Your task to perform on an android device: delete location history Image 0: 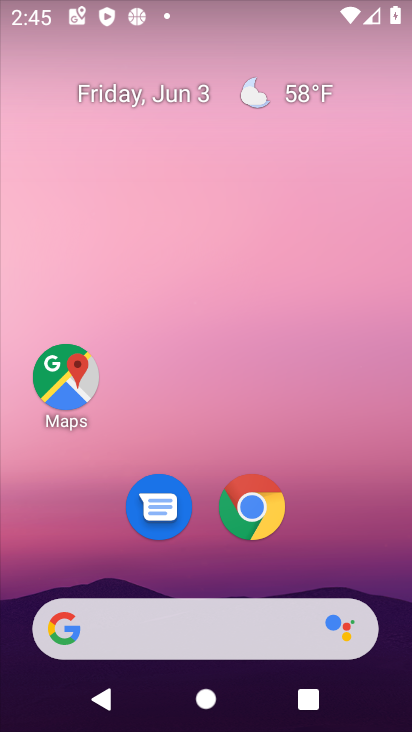
Step 0: click (68, 378)
Your task to perform on an android device: delete location history Image 1: 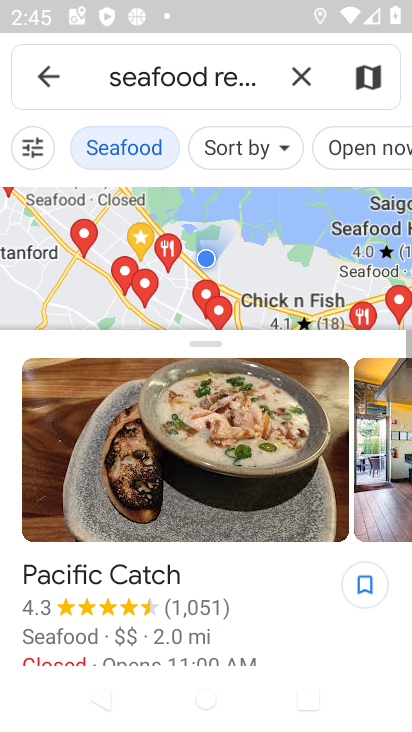
Step 1: click (297, 83)
Your task to perform on an android device: delete location history Image 2: 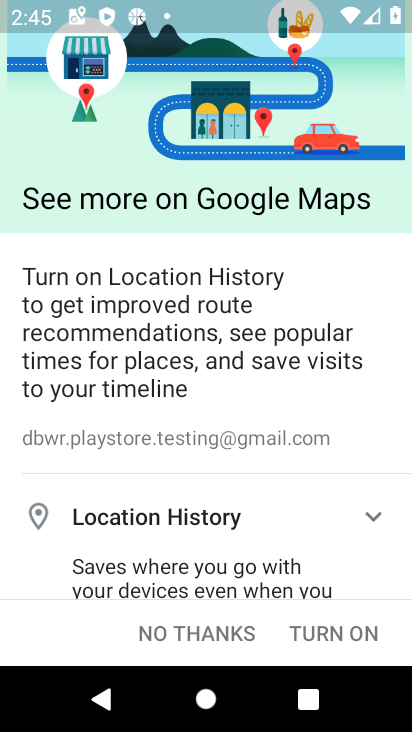
Step 2: click (201, 635)
Your task to perform on an android device: delete location history Image 3: 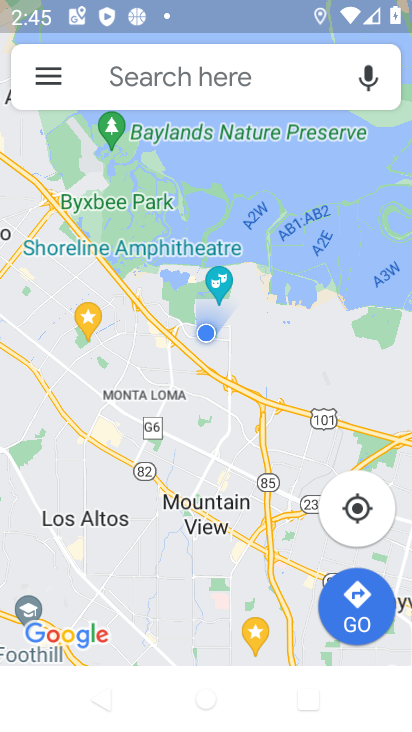
Step 3: click (49, 78)
Your task to perform on an android device: delete location history Image 4: 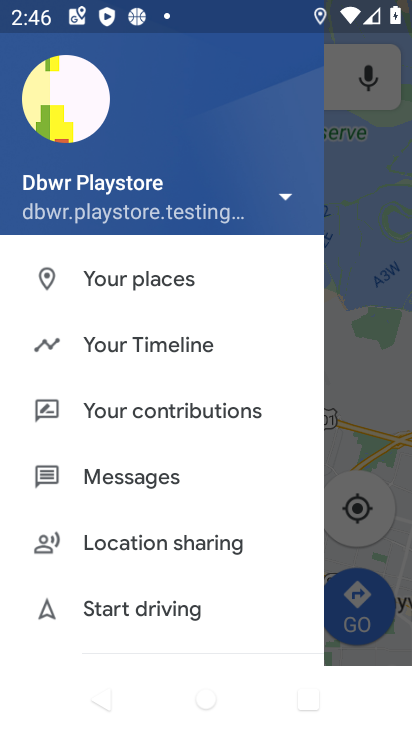
Step 4: drag from (125, 576) to (153, 482)
Your task to perform on an android device: delete location history Image 5: 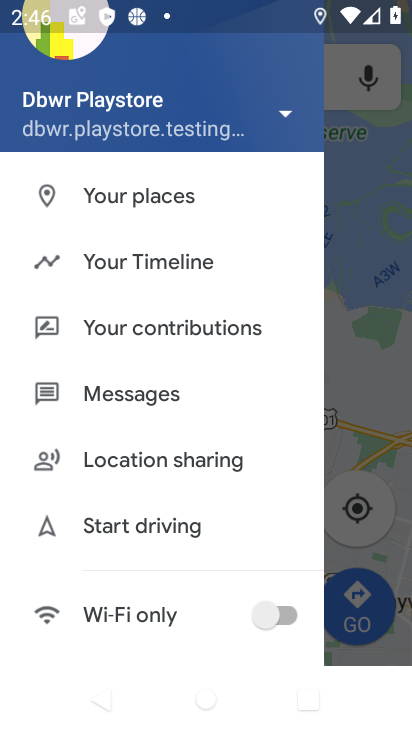
Step 5: drag from (154, 537) to (216, 461)
Your task to perform on an android device: delete location history Image 6: 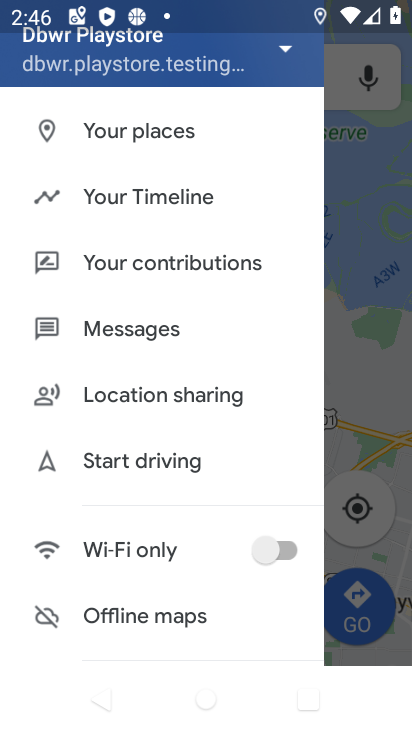
Step 6: drag from (148, 491) to (187, 425)
Your task to perform on an android device: delete location history Image 7: 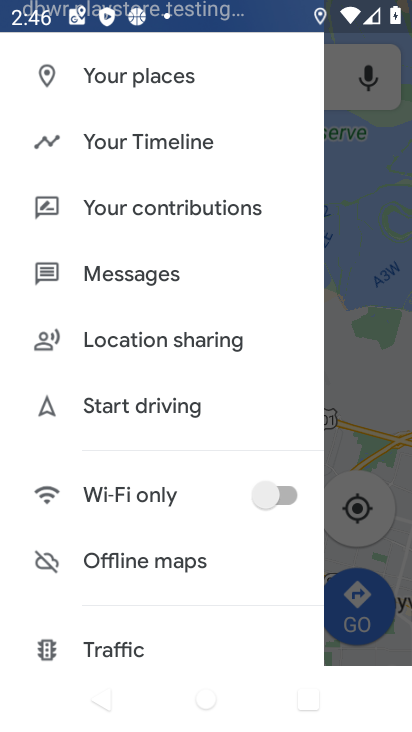
Step 7: drag from (130, 528) to (194, 411)
Your task to perform on an android device: delete location history Image 8: 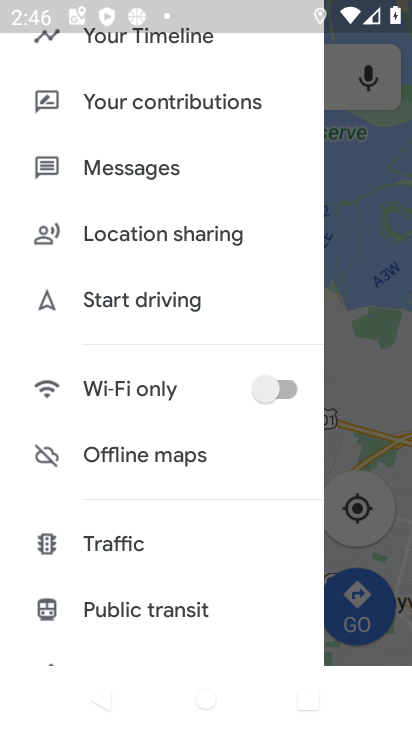
Step 8: drag from (116, 514) to (203, 406)
Your task to perform on an android device: delete location history Image 9: 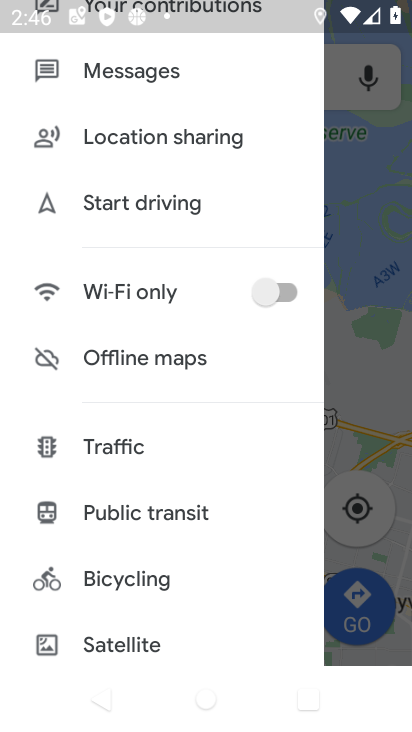
Step 9: drag from (121, 536) to (194, 436)
Your task to perform on an android device: delete location history Image 10: 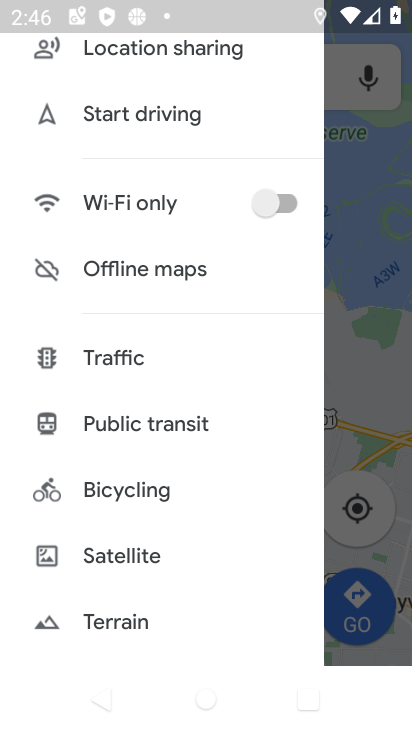
Step 10: drag from (115, 524) to (178, 422)
Your task to perform on an android device: delete location history Image 11: 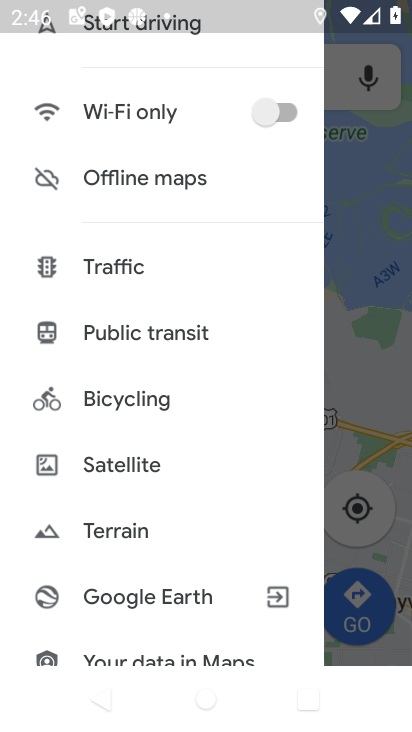
Step 11: drag from (110, 502) to (192, 384)
Your task to perform on an android device: delete location history Image 12: 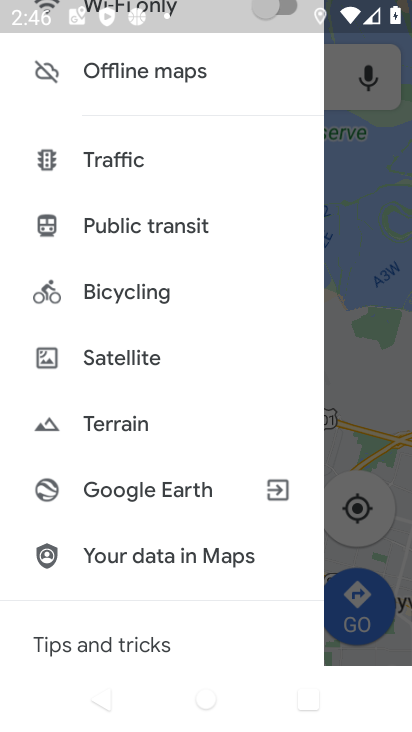
Step 12: drag from (114, 461) to (154, 363)
Your task to perform on an android device: delete location history Image 13: 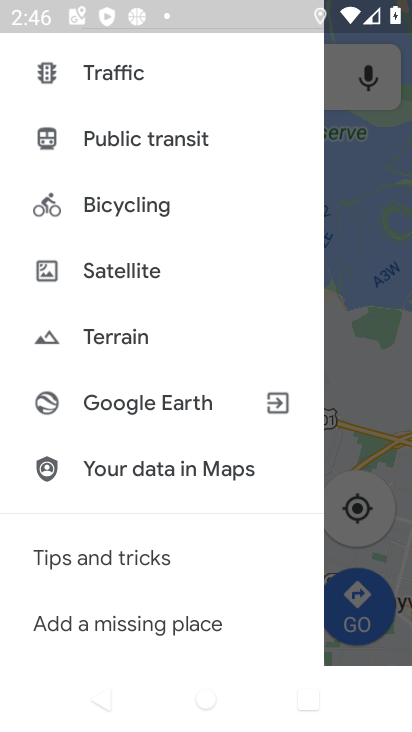
Step 13: drag from (114, 490) to (148, 385)
Your task to perform on an android device: delete location history Image 14: 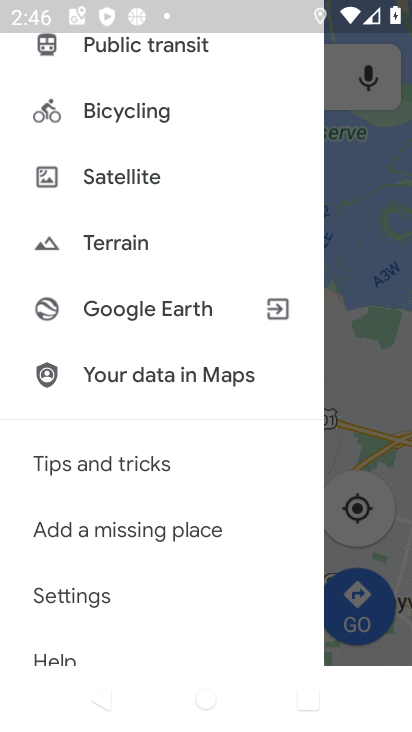
Step 14: click (103, 591)
Your task to perform on an android device: delete location history Image 15: 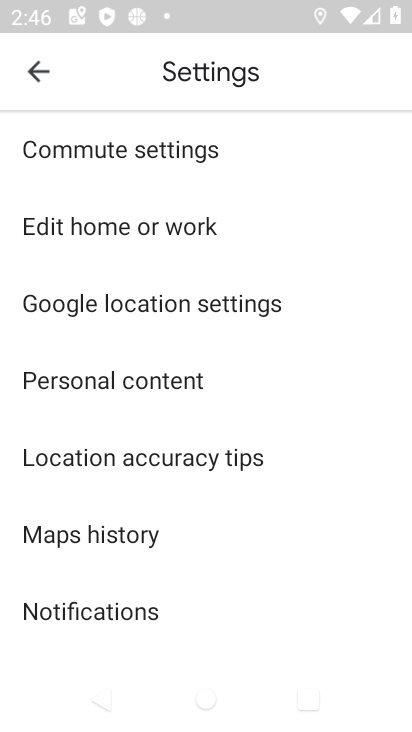
Step 15: click (133, 371)
Your task to perform on an android device: delete location history Image 16: 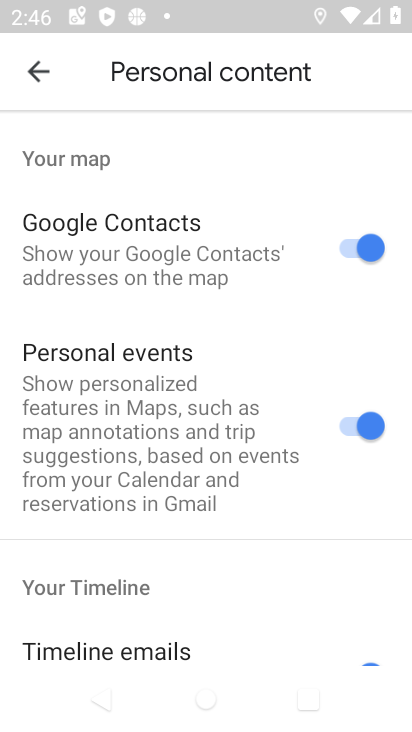
Step 16: drag from (142, 539) to (204, 440)
Your task to perform on an android device: delete location history Image 17: 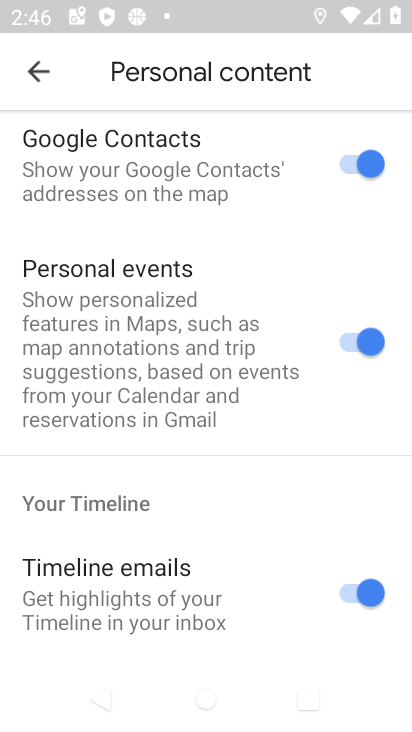
Step 17: drag from (120, 532) to (215, 431)
Your task to perform on an android device: delete location history Image 18: 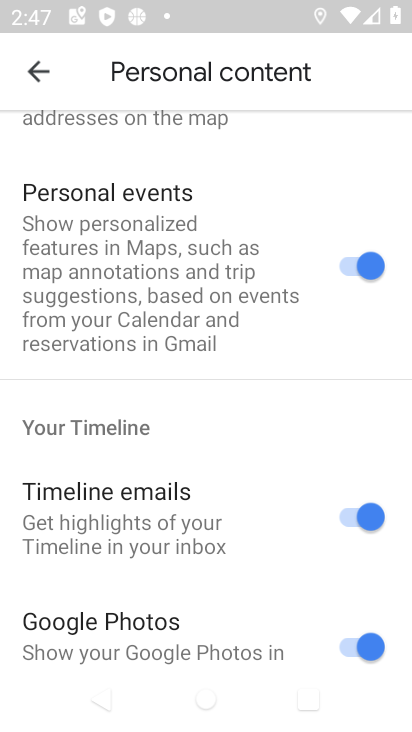
Step 18: drag from (119, 577) to (186, 472)
Your task to perform on an android device: delete location history Image 19: 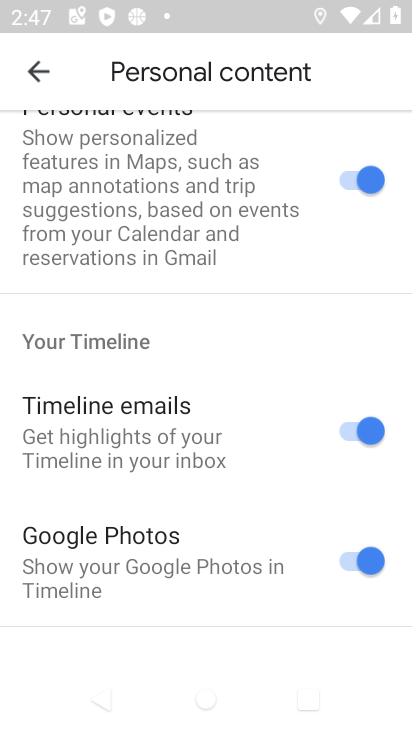
Step 19: drag from (103, 507) to (188, 388)
Your task to perform on an android device: delete location history Image 20: 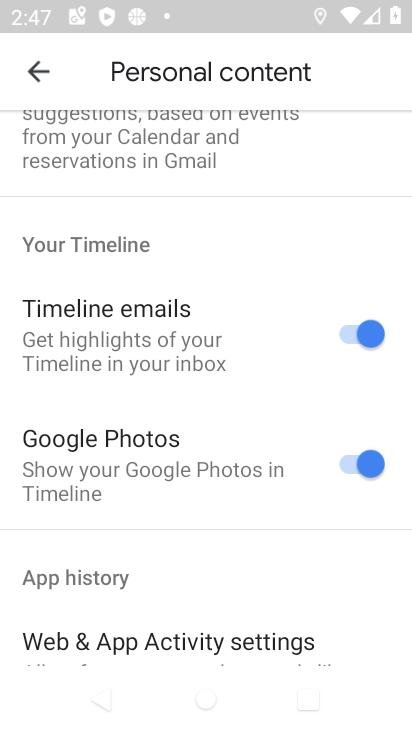
Step 20: drag from (79, 545) to (194, 422)
Your task to perform on an android device: delete location history Image 21: 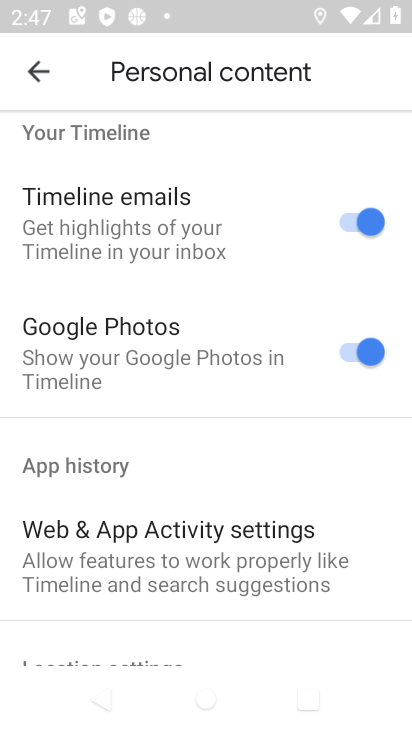
Step 21: drag from (78, 496) to (159, 395)
Your task to perform on an android device: delete location history Image 22: 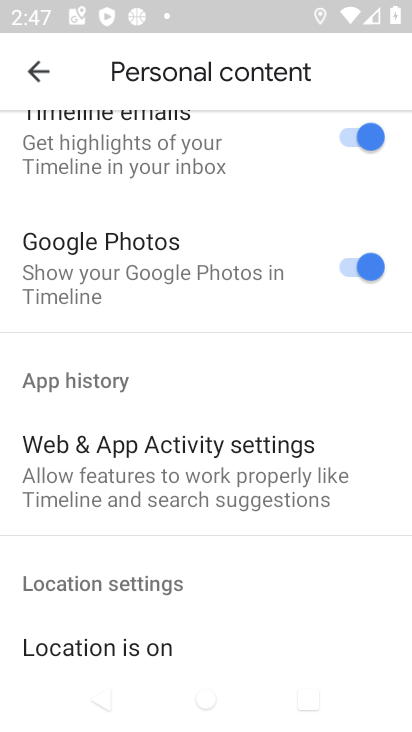
Step 22: drag from (69, 409) to (164, 281)
Your task to perform on an android device: delete location history Image 23: 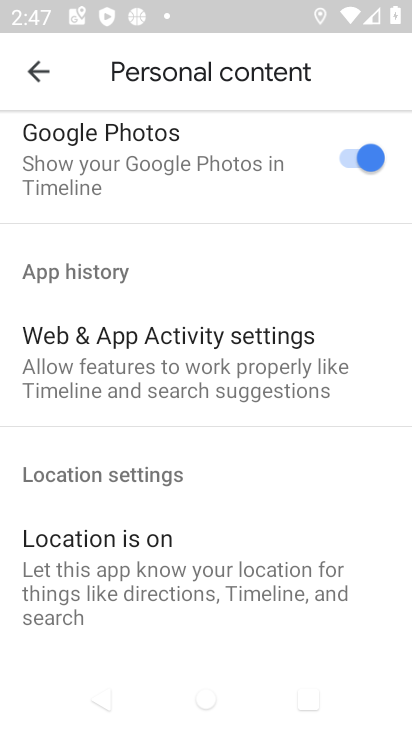
Step 23: drag from (68, 443) to (121, 339)
Your task to perform on an android device: delete location history Image 24: 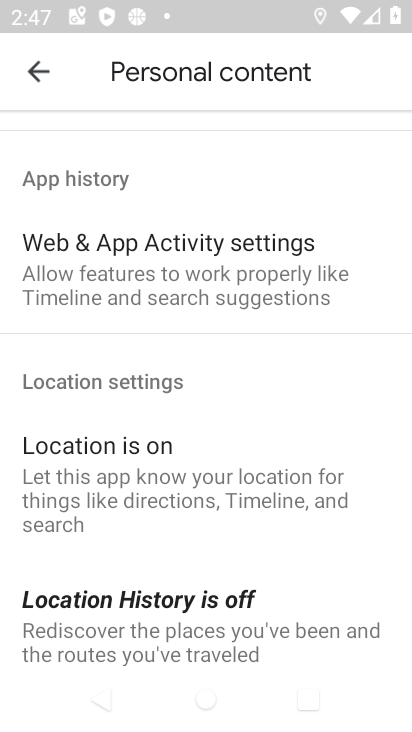
Step 24: drag from (76, 415) to (108, 294)
Your task to perform on an android device: delete location history Image 25: 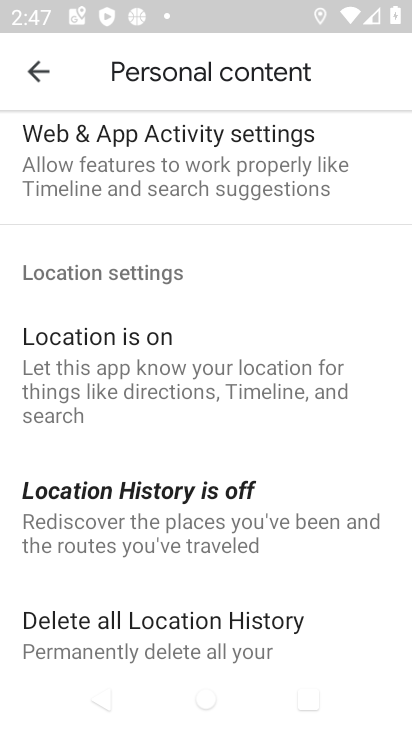
Step 25: drag from (82, 439) to (121, 344)
Your task to perform on an android device: delete location history Image 26: 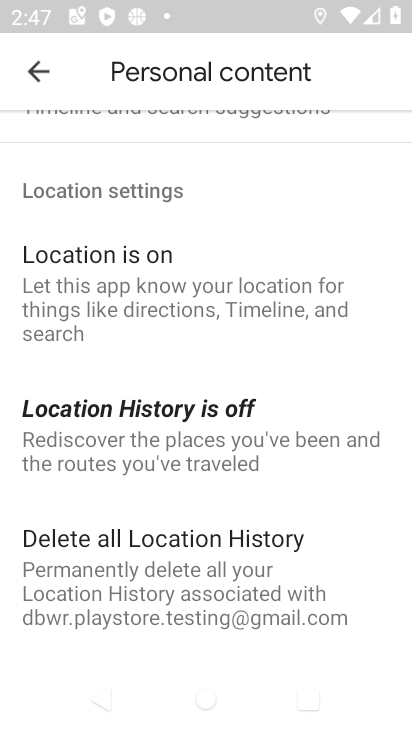
Step 26: drag from (117, 373) to (186, 267)
Your task to perform on an android device: delete location history Image 27: 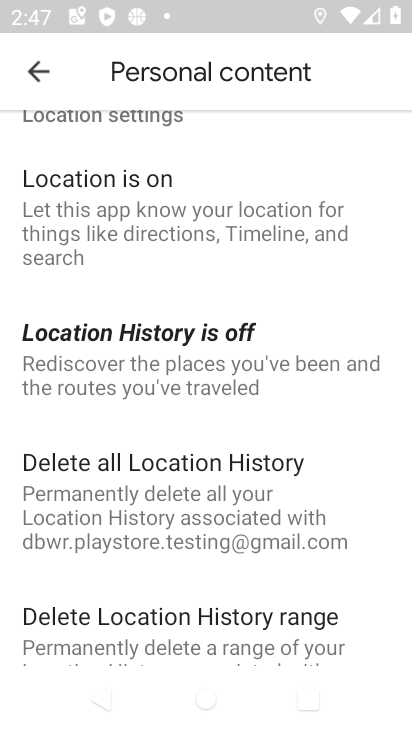
Step 27: click (197, 461)
Your task to perform on an android device: delete location history Image 28: 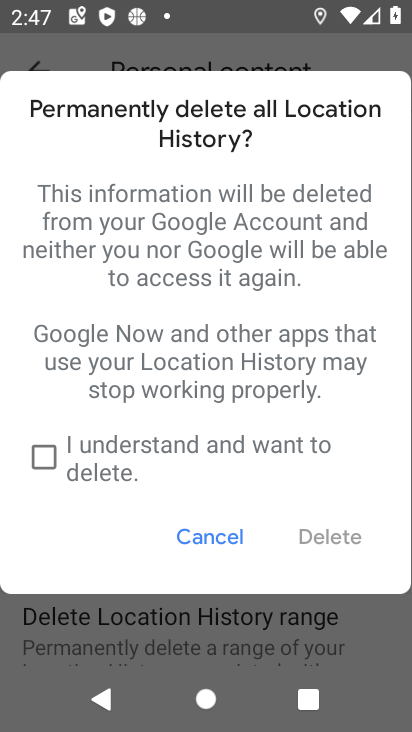
Step 28: click (48, 453)
Your task to perform on an android device: delete location history Image 29: 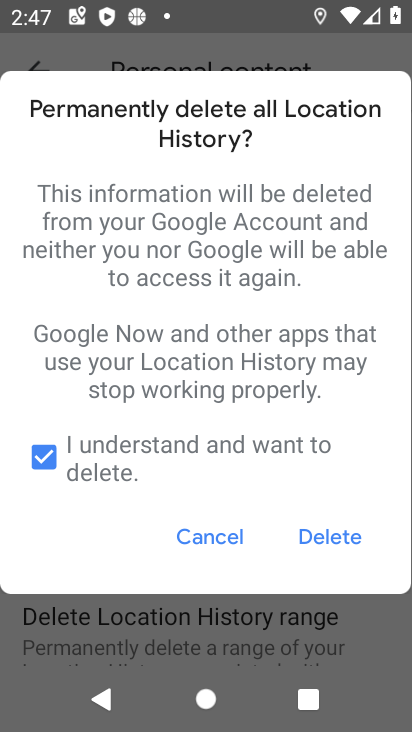
Step 29: click (327, 532)
Your task to perform on an android device: delete location history Image 30: 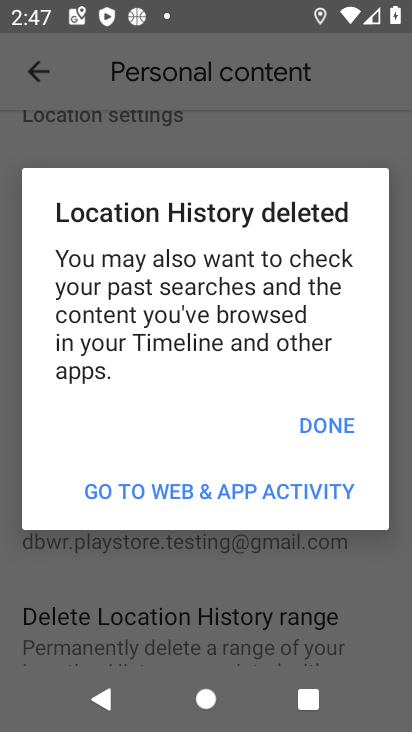
Step 30: click (331, 430)
Your task to perform on an android device: delete location history Image 31: 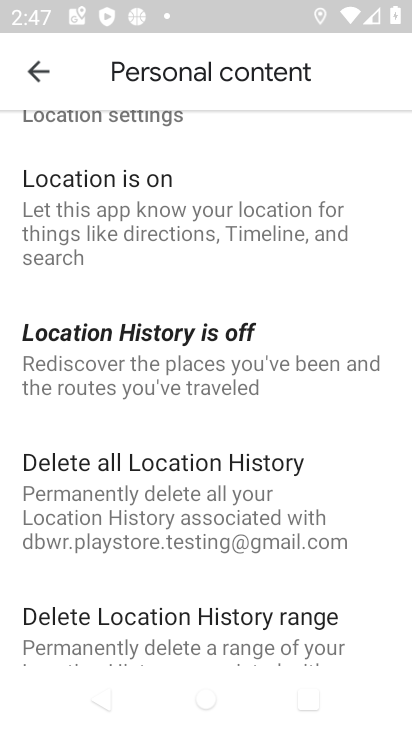
Step 31: task complete